Your task to perform on an android device: check storage Image 0: 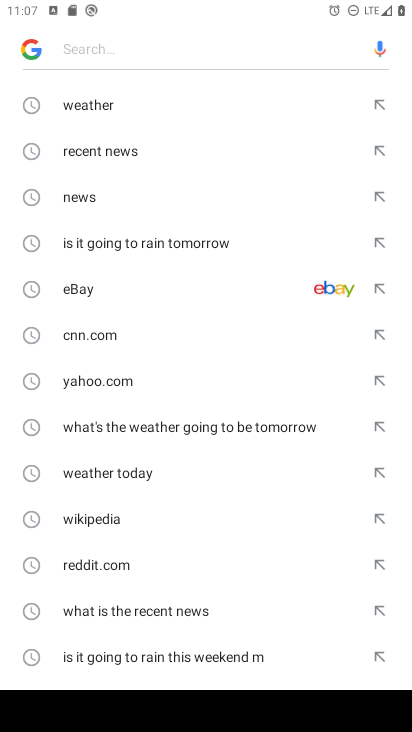
Step 0: press home button
Your task to perform on an android device: check storage Image 1: 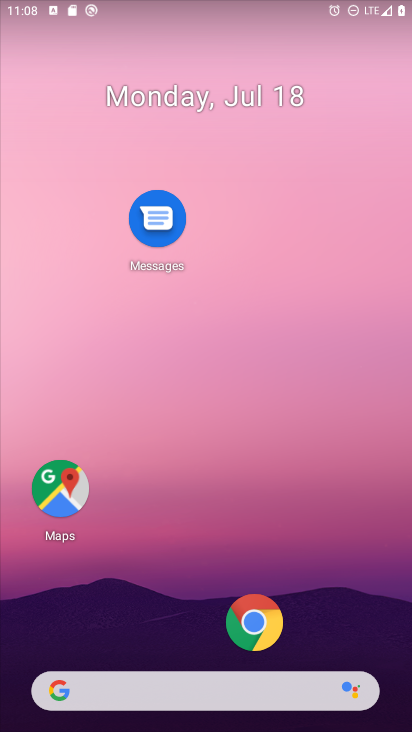
Step 1: drag from (234, 654) to (264, 29)
Your task to perform on an android device: check storage Image 2: 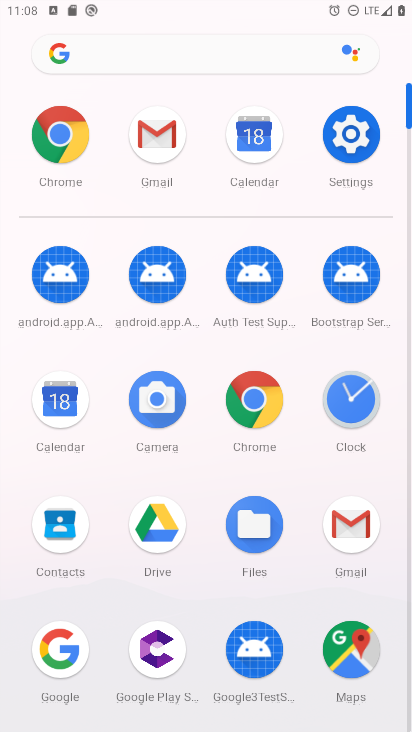
Step 2: click (371, 152)
Your task to perform on an android device: check storage Image 3: 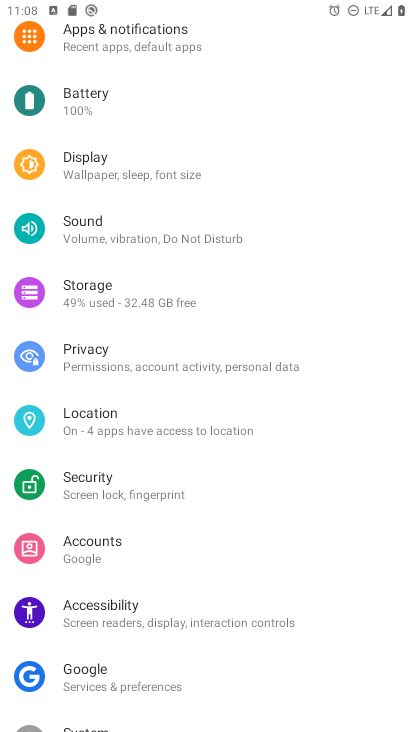
Step 3: click (116, 291)
Your task to perform on an android device: check storage Image 4: 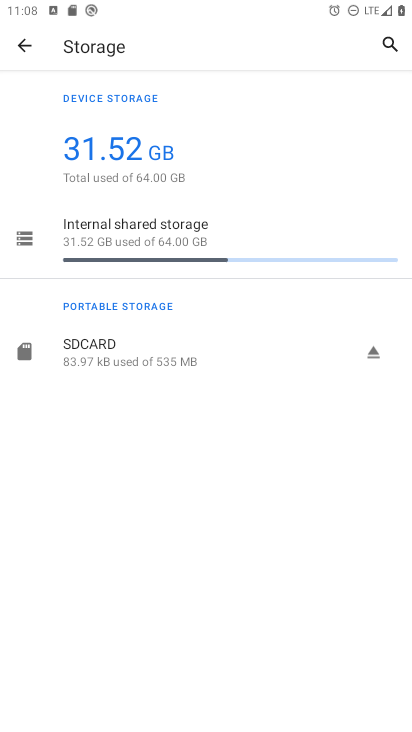
Step 4: click (157, 271)
Your task to perform on an android device: check storage Image 5: 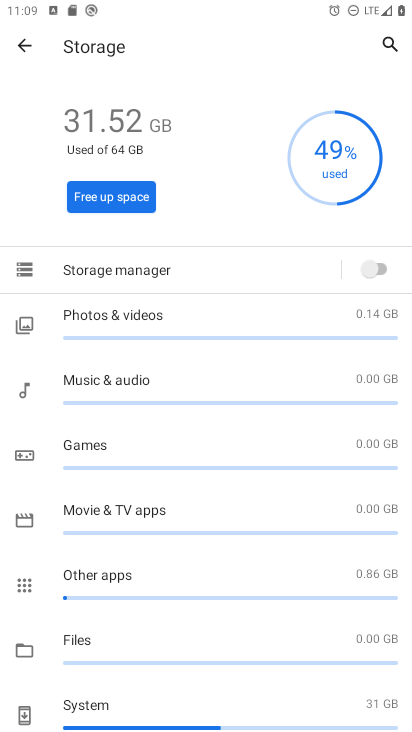
Step 5: task complete